Your task to perform on an android device: turn on showing notifications on the lock screen Image 0: 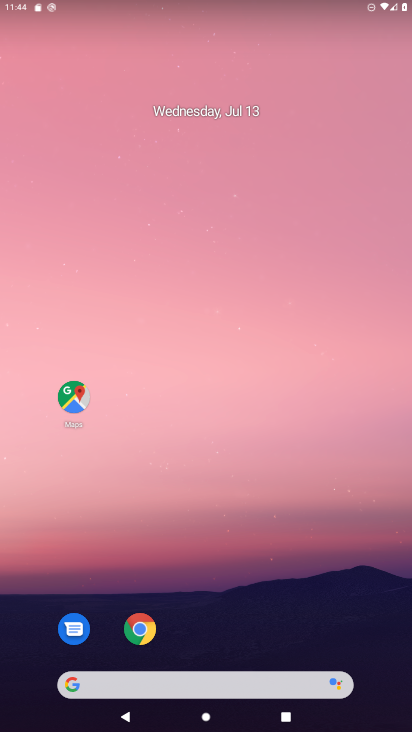
Step 0: drag from (373, 648) to (317, 188)
Your task to perform on an android device: turn on showing notifications on the lock screen Image 1: 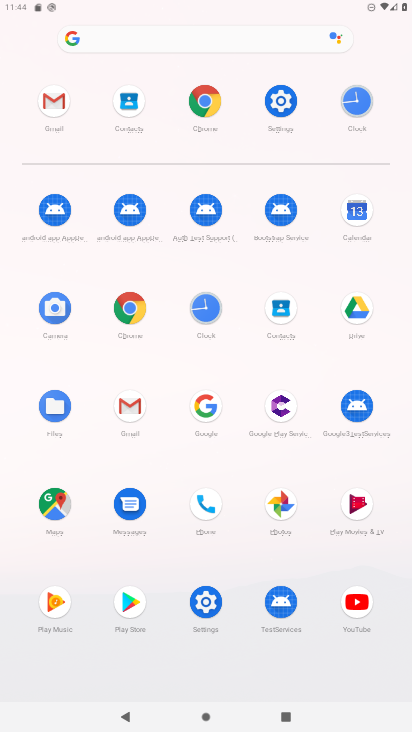
Step 1: drag from (282, 104) to (207, 425)
Your task to perform on an android device: turn on showing notifications on the lock screen Image 2: 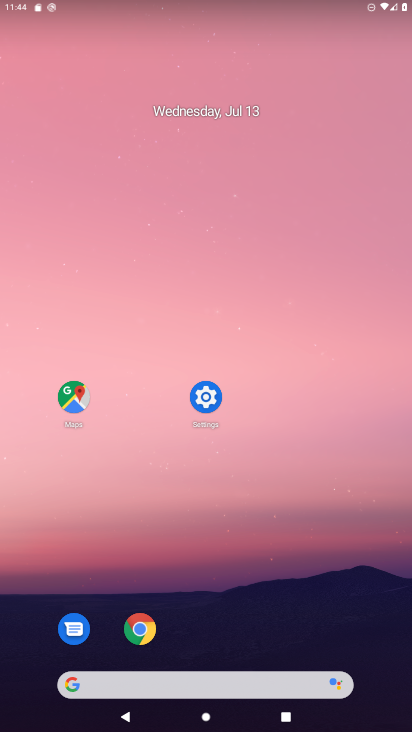
Step 2: click (185, 401)
Your task to perform on an android device: turn on showing notifications on the lock screen Image 3: 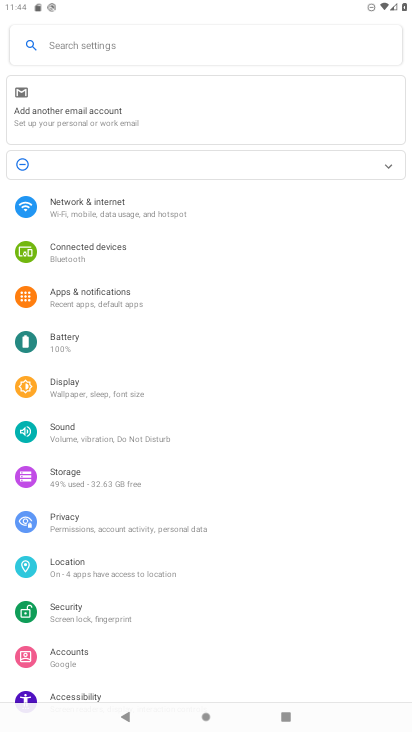
Step 3: click (63, 294)
Your task to perform on an android device: turn on showing notifications on the lock screen Image 4: 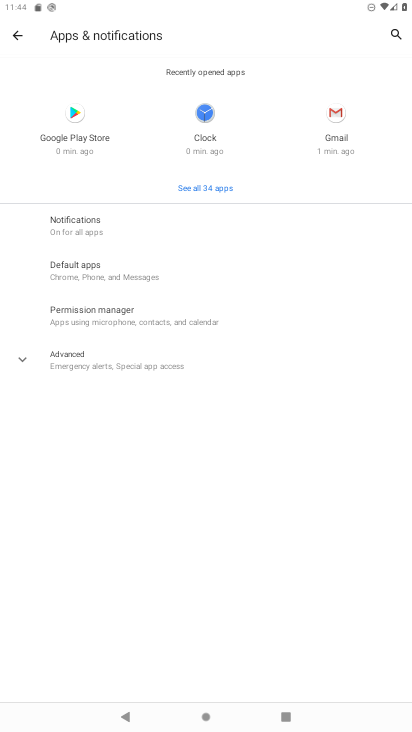
Step 4: click (73, 222)
Your task to perform on an android device: turn on showing notifications on the lock screen Image 5: 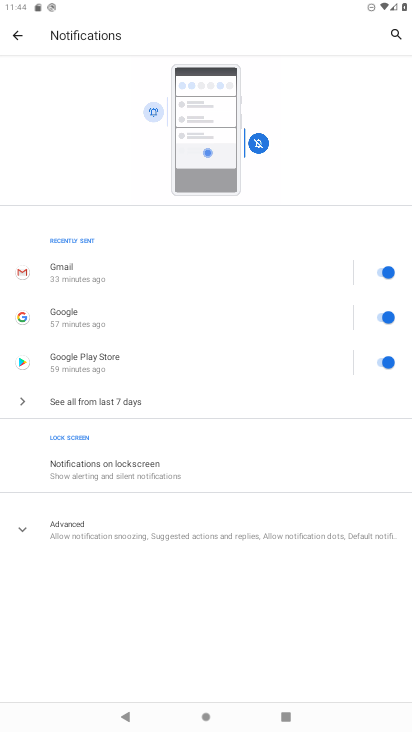
Step 5: click (95, 465)
Your task to perform on an android device: turn on showing notifications on the lock screen Image 6: 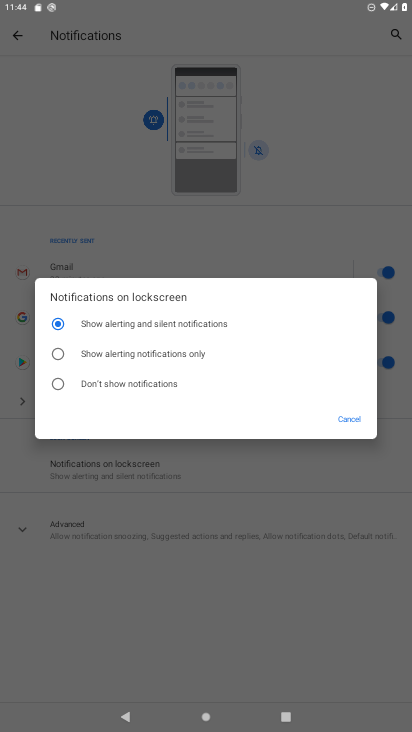
Step 6: task complete